Your task to perform on an android device: toggle notifications settings in the gmail app Image 0: 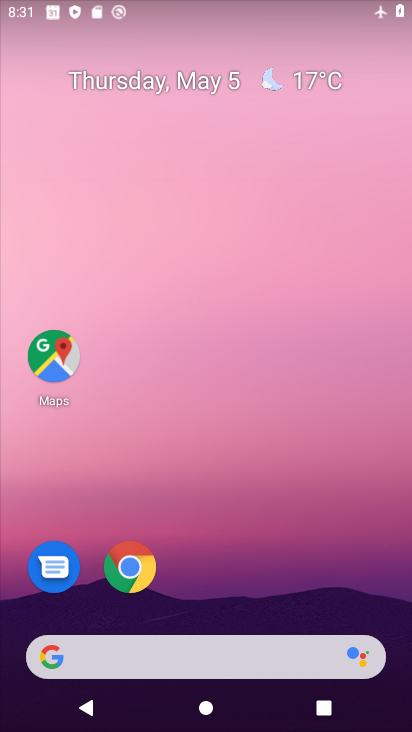
Step 0: drag from (213, 721) to (163, 129)
Your task to perform on an android device: toggle notifications settings in the gmail app Image 1: 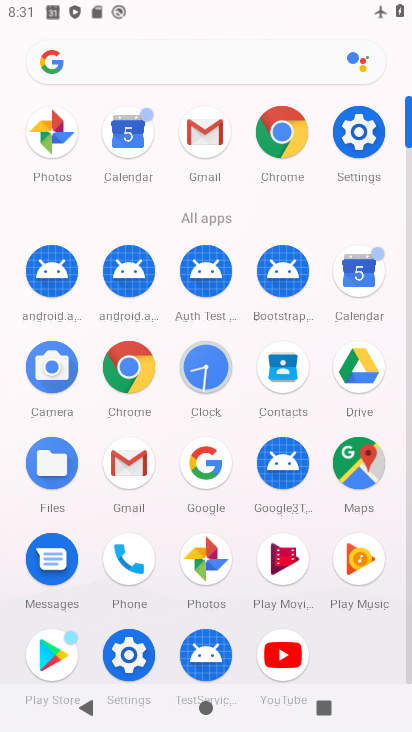
Step 1: click (209, 134)
Your task to perform on an android device: toggle notifications settings in the gmail app Image 2: 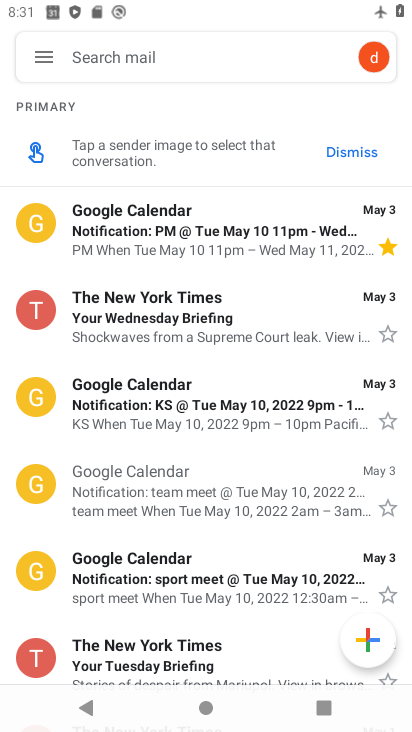
Step 2: click (35, 56)
Your task to perform on an android device: toggle notifications settings in the gmail app Image 3: 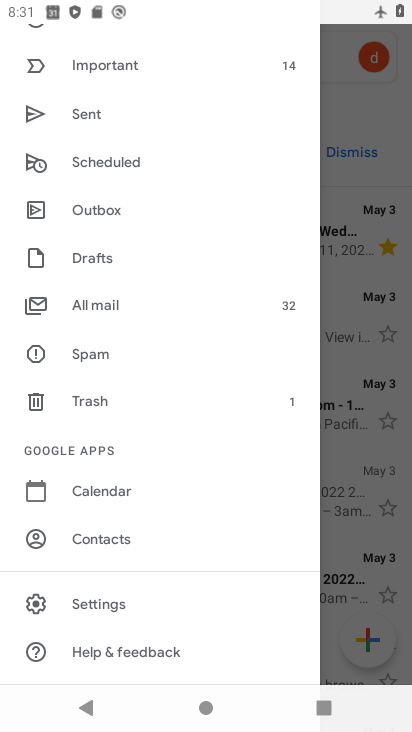
Step 3: click (88, 600)
Your task to perform on an android device: toggle notifications settings in the gmail app Image 4: 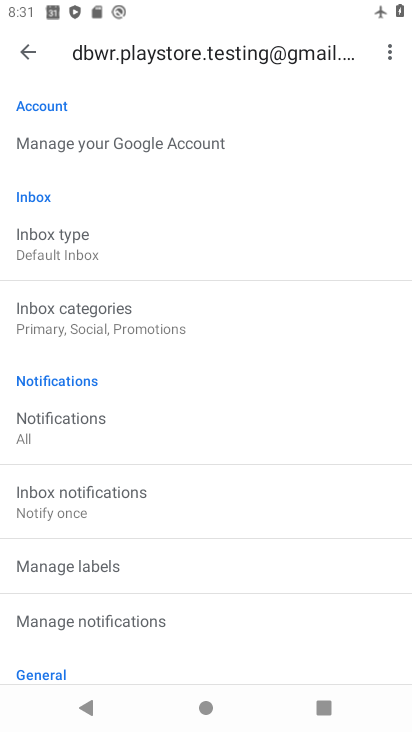
Step 4: click (68, 501)
Your task to perform on an android device: toggle notifications settings in the gmail app Image 5: 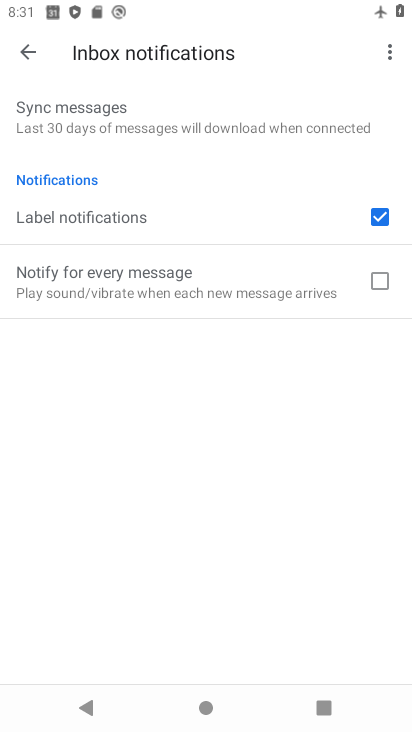
Step 5: click (28, 51)
Your task to perform on an android device: toggle notifications settings in the gmail app Image 6: 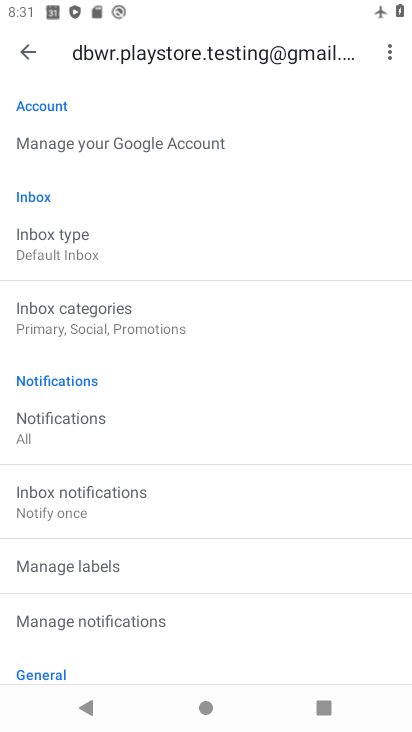
Step 6: click (82, 416)
Your task to perform on an android device: toggle notifications settings in the gmail app Image 7: 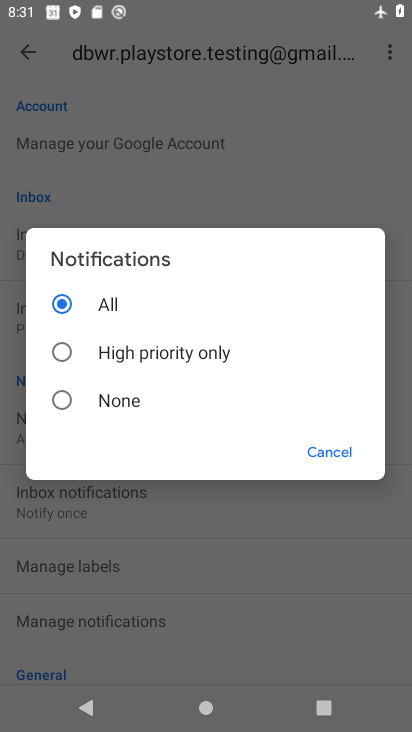
Step 7: click (56, 398)
Your task to perform on an android device: toggle notifications settings in the gmail app Image 8: 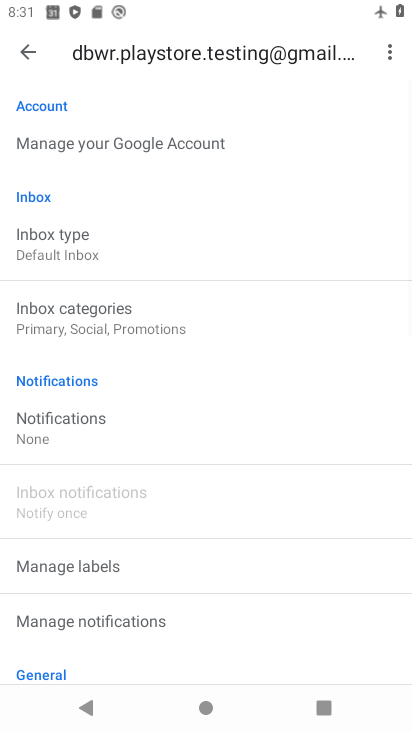
Step 8: task complete